Your task to perform on an android device: open a new tab in the chrome app Image 0: 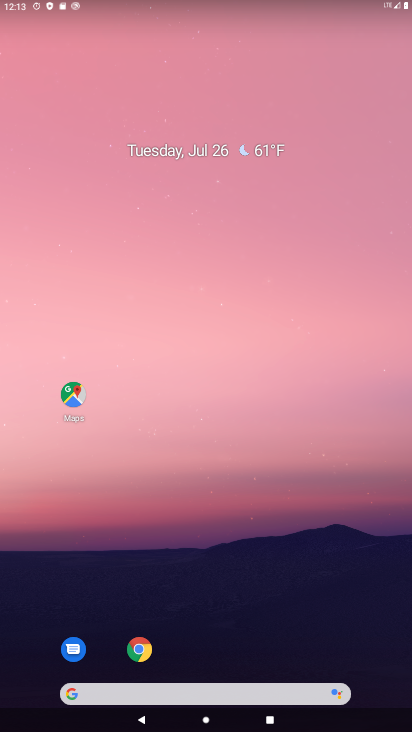
Step 0: drag from (210, 676) to (206, 100)
Your task to perform on an android device: open a new tab in the chrome app Image 1: 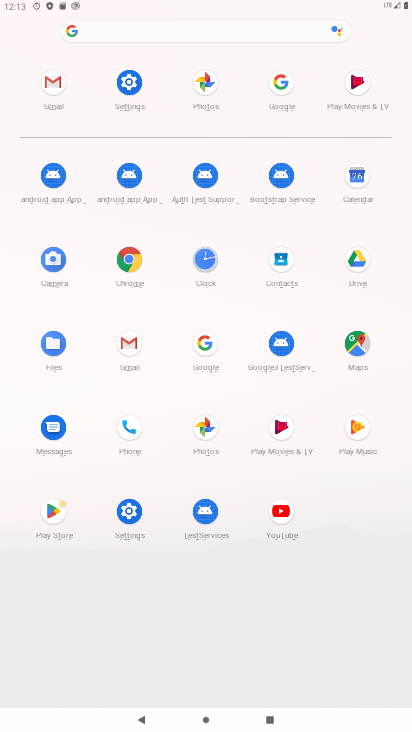
Step 1: click (137, 266)
Your task to perform on an android device: open a new tab in the chrome app Image 2: 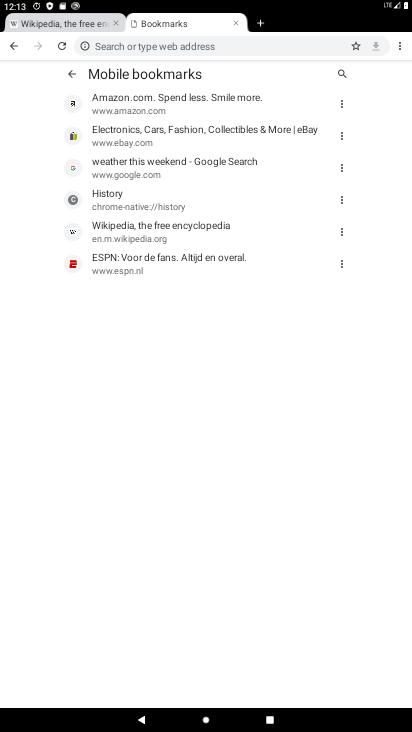
Step 2: click (259, 21)
Your task to perform on an android device: open a new tab in the chrome app Image 3: 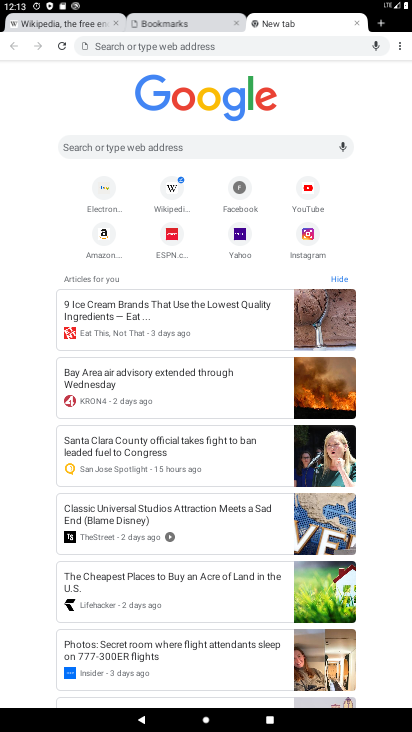
Step 3: task complete